Your task to perform on an android device: Check the weather Image 0: 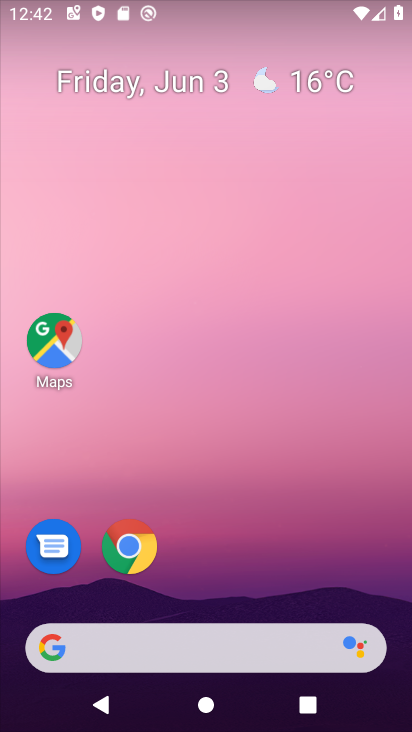
Step 0: click (182, 655)
Your task to perform on an android device: Check the weather Image 1: 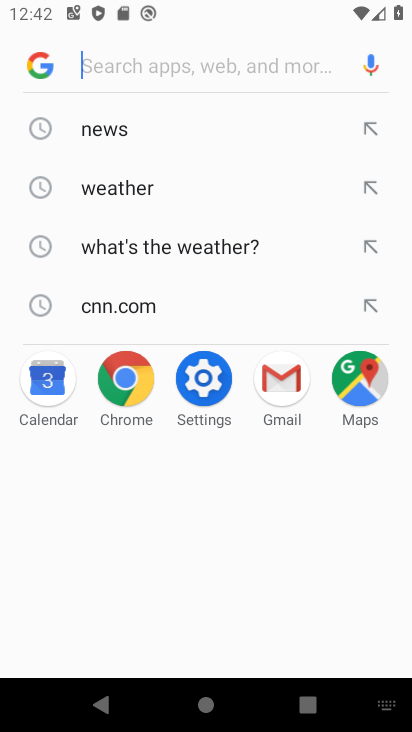
Step 1: click (129, 177)
Your task to perform on an android device: Check the weather Image 2: 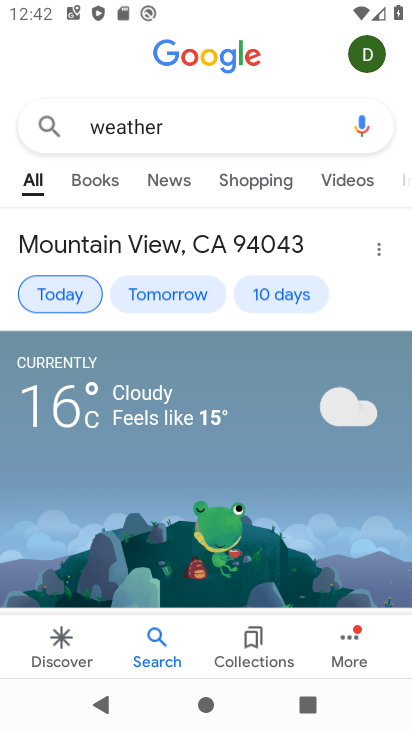
Step 2: task complete